Your task to perform on an android device: turn off picture-in-picture Image 0: 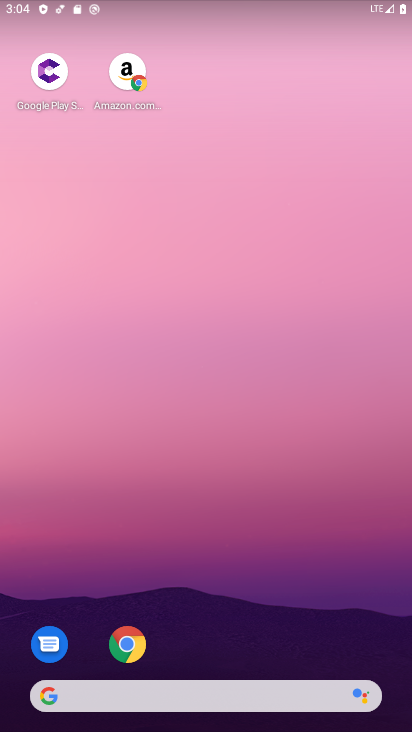
Step 0: drag from (225, 589) to (165, 47)
Your task to perform on an android device: turn off picture-in-picture Image 1: 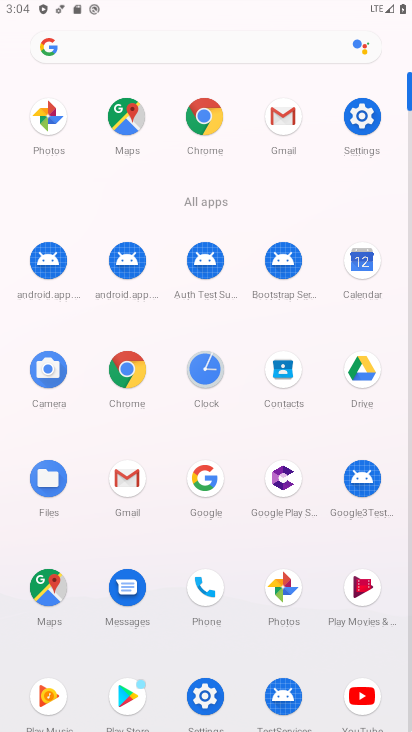
Step 1: click (201, 129)
Your task to perform on an android device: turn off picture-in-picture Image 2: 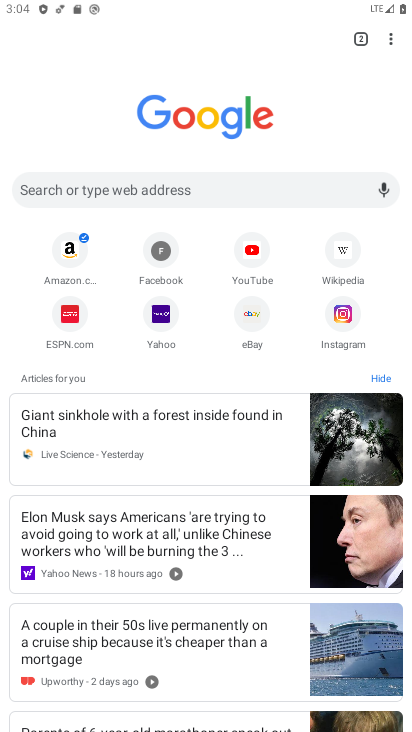
Step 2: press home button
Your task to perform on an android device: turn off picture-in-picture Image 3: 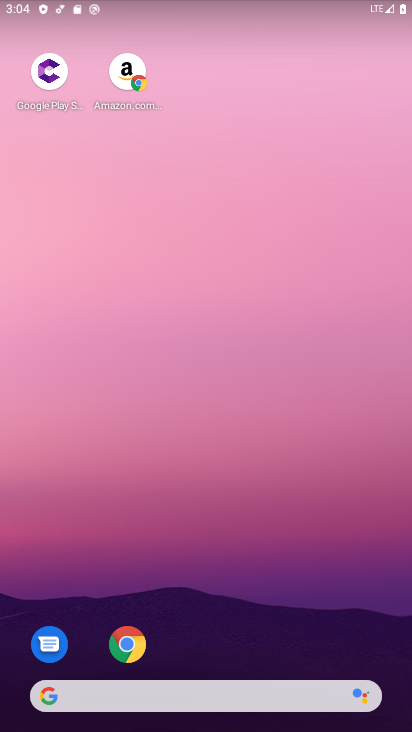
Step 3: click (121, 639)
Your task to perform on an android device: turn off picture-in-picture Image 4: 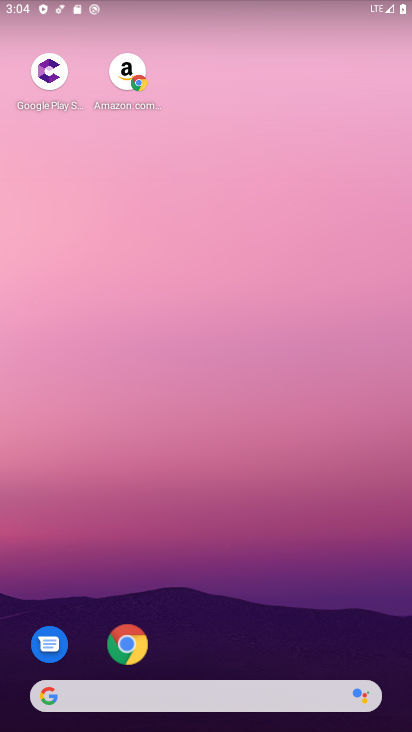
Step 4: click (123, 638)
Your task to perform on an android device: turn off picture-in-picture Image 5: 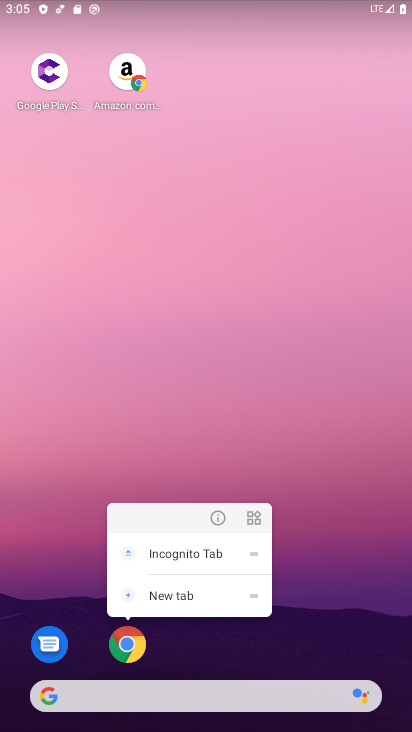
Step 5: click (214, 523)
Your task to perform on an android device: turn off picture-in-picture Image 6: 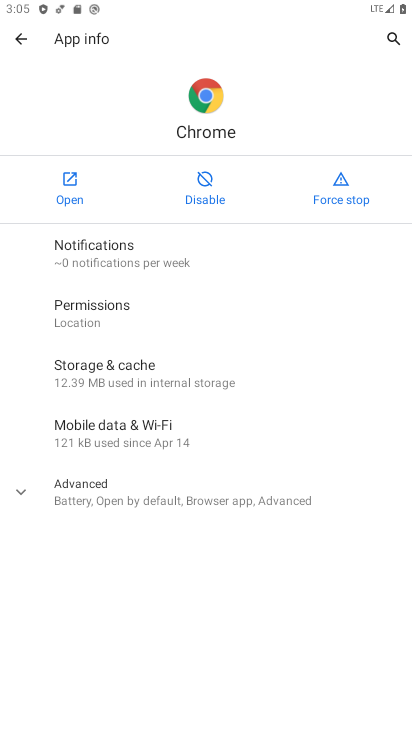
Step 6: click (104, 503)
Your task to perform on an android device: turn off picture-in-picture Image 7: 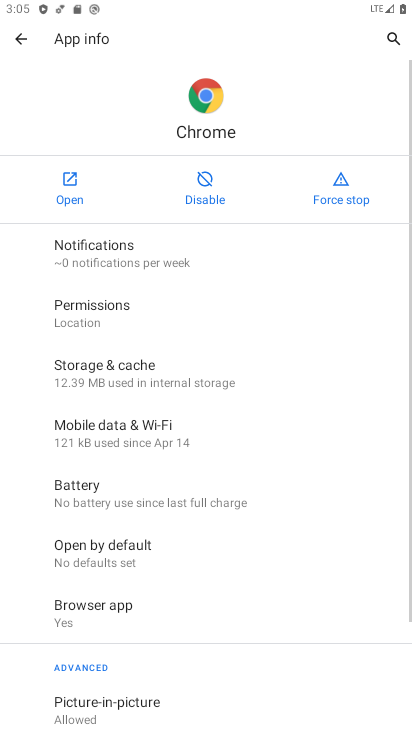
Step 7: drag from (148, 674) to (194, 377)
Your task to perform on an android device: turn off picture-in-picture Image 8: 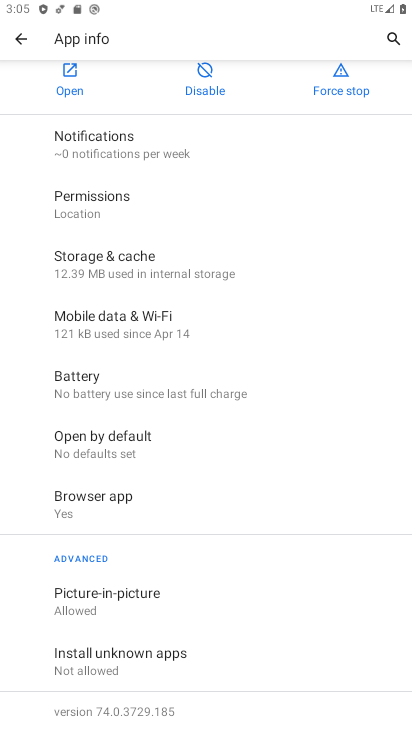
Step 8: click (128, 589)
Your task to perform on an android device: turn off picture-in-picture Image 9: 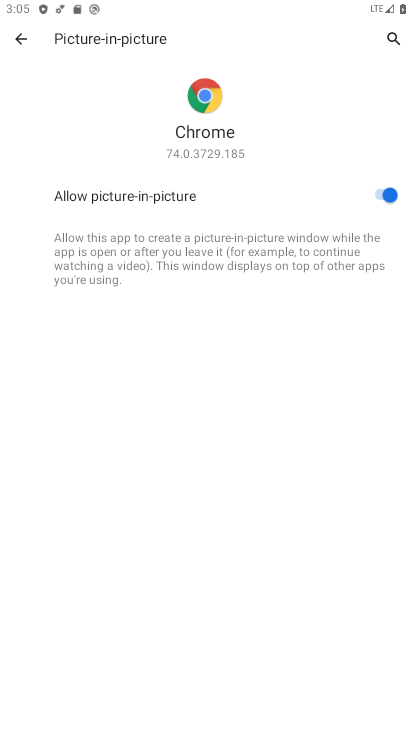
Step 9: click (385, 205)
Your task to perform on an android device: turn off picture-in-picture Image 10: 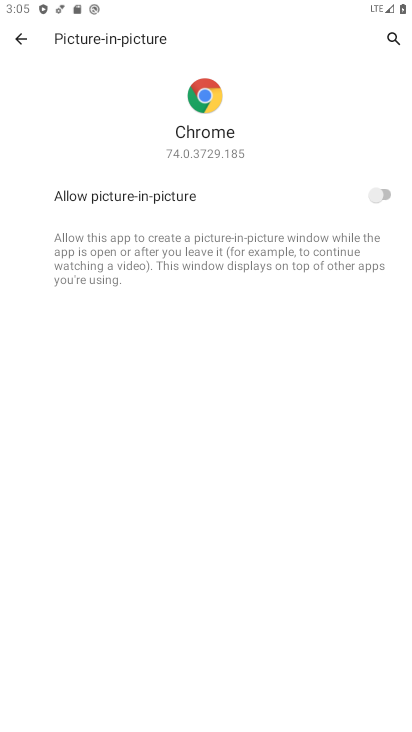
Step 10: task complete